Your task to perform on an android device: Open sound settings Image 0: 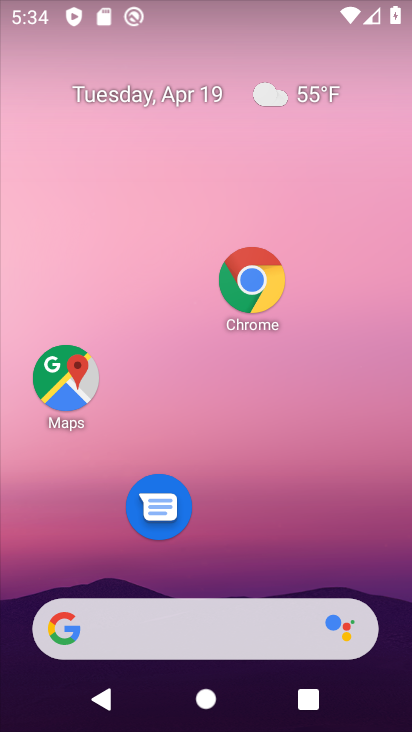
Step 0: drag from (215, 521) to (215, 232)
Your task to perform on an android device: Open sound settings Image 1: 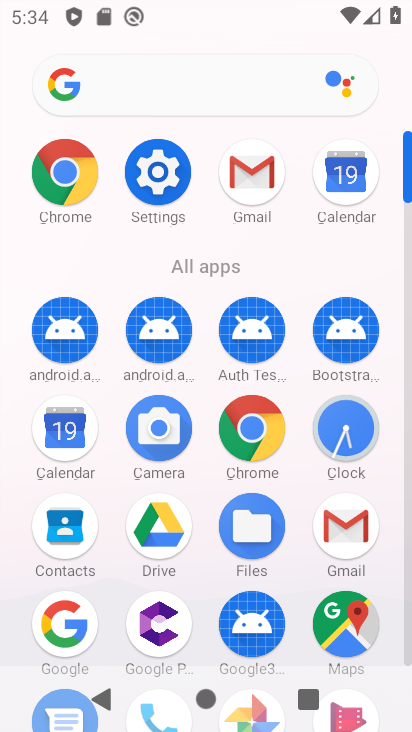
Step 1: click (142, 179)
Your task to perform on an android device: Open sound settings Image 2: 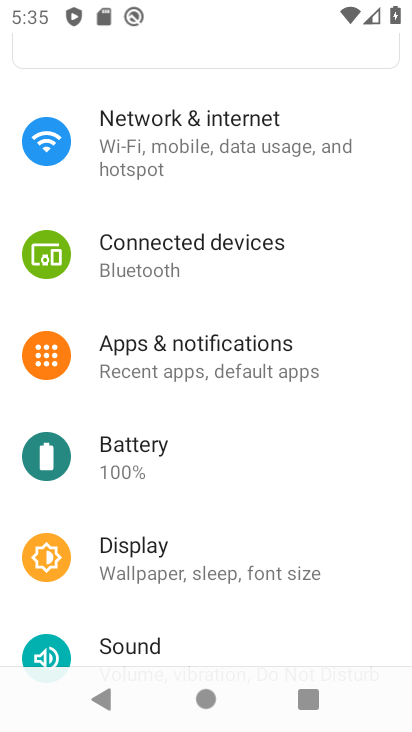
Step 2: click (120, 648)
Your task to perform on an android device: Open sound settings Image 3: 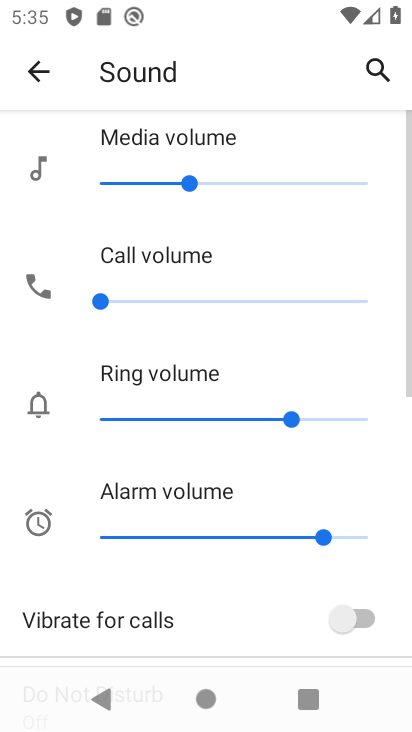
Step 3: drag from (208, 591) to (190, 191)
Your task to perform on an android device: Open sound settings Image 4: 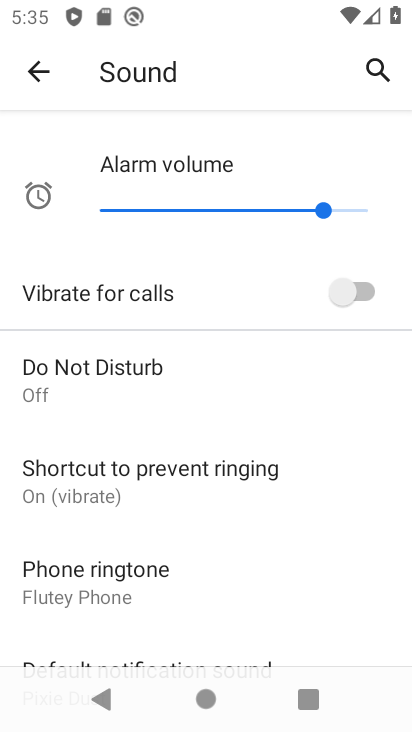
Step 4: drag from (195, 571) to (233, 323)
Your task to perform on an android device: Open sound settings Image 5: 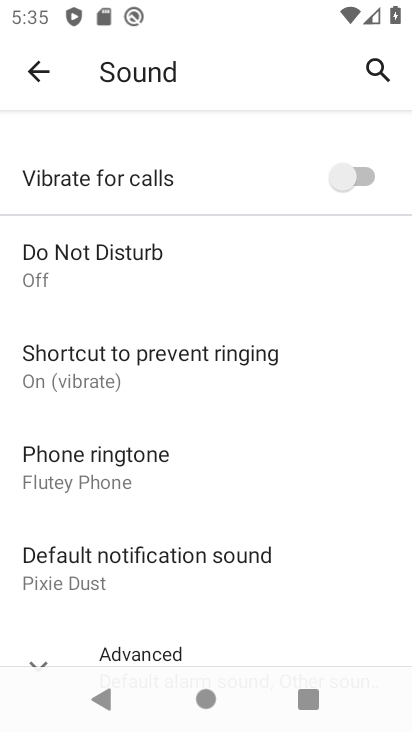
Step 5: drag from (167, 646) to (239, 383)
Your task to perform on an android device: Open sound settings Image 6: 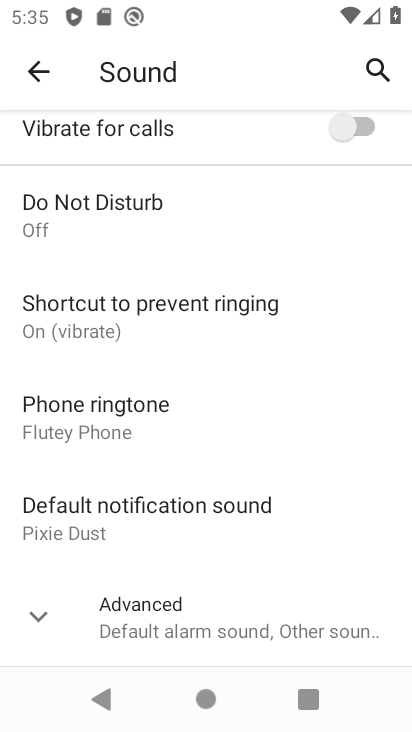
Step 6: click (185, 614)
Your task to perform on an android device: Open sound settings Image 7: 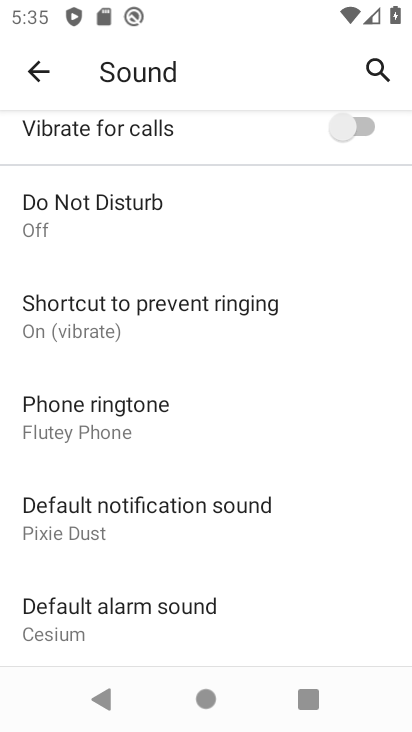
Step 7: task complete